Your task to perform on an android device: Go to sound settings Image 0: 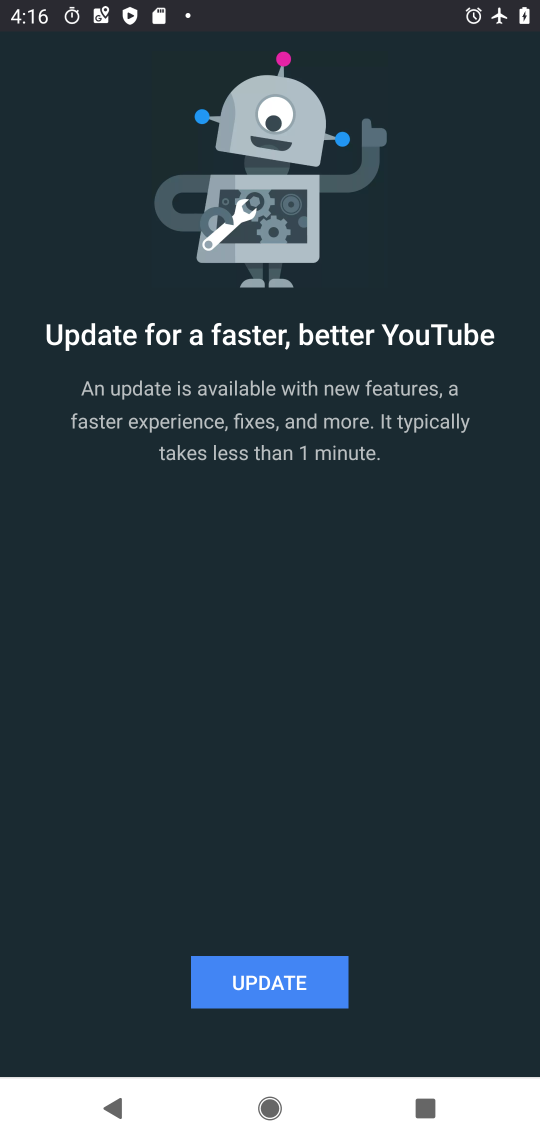
Step 0: press home button
Your task to perform on an android device: Go to sound settings Image 1: 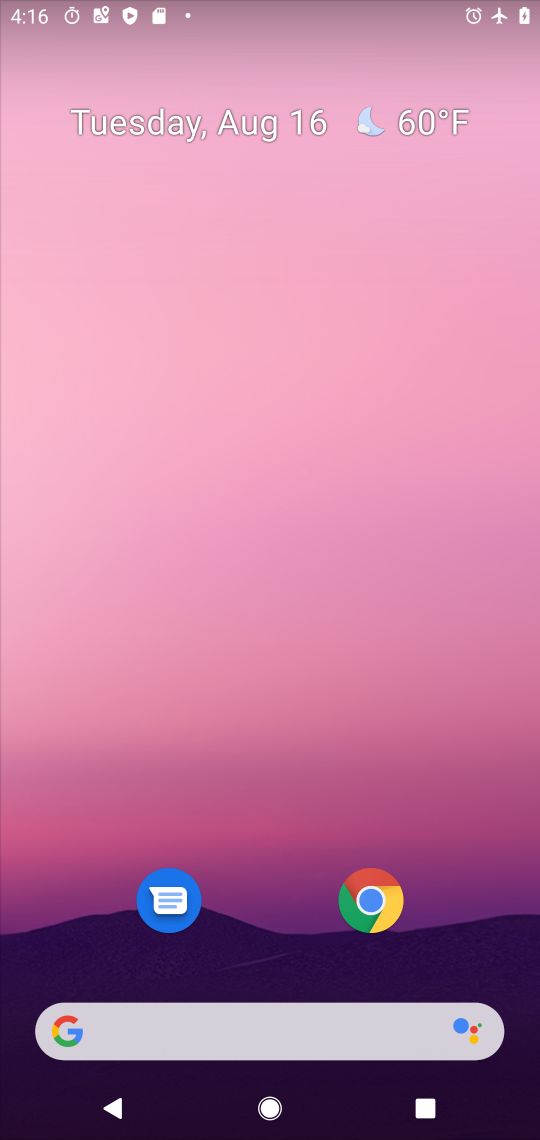
Step 1: drag from (276, 954) to (226, 81)
Your task to perform on an android device: Go to sound settings Image 2: 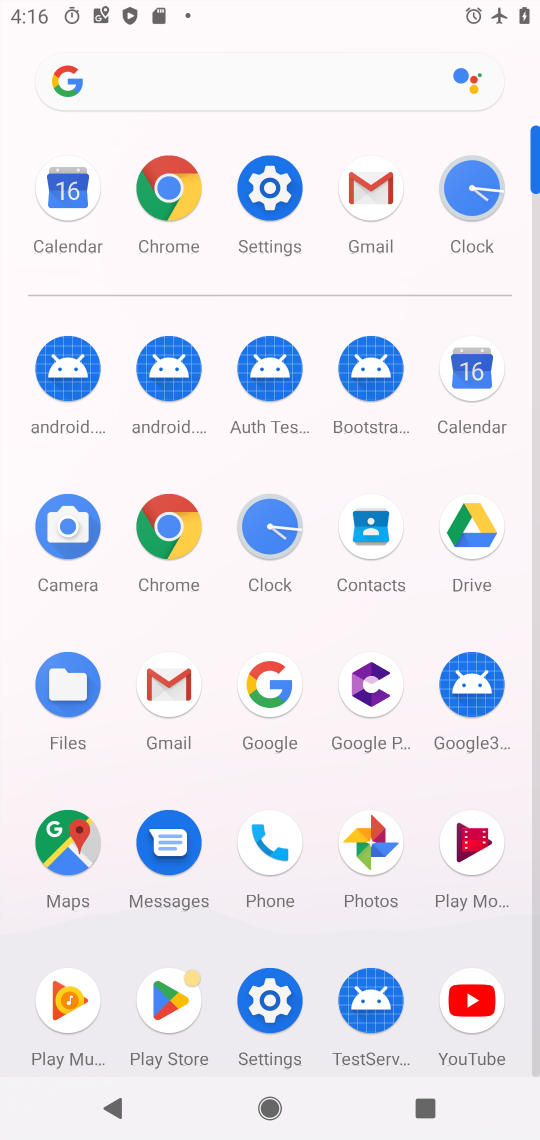
Step 2: click (280, 186)
Your task to perform on an android device: Go to sound settings Image 3: 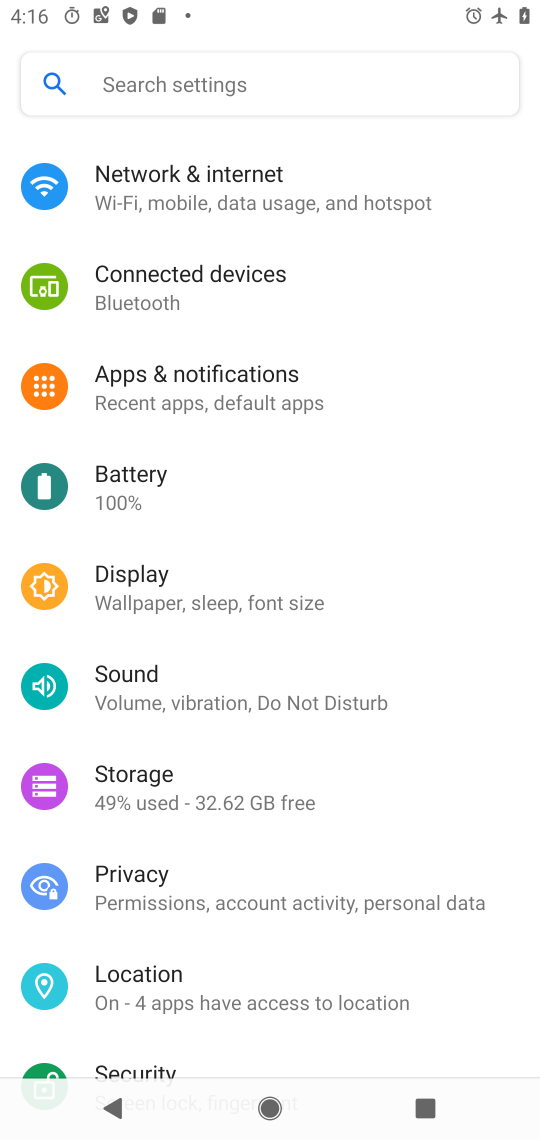
Step 3: click (145, 671)
Your task to perform on an android device: Go to sound settings Image 4: 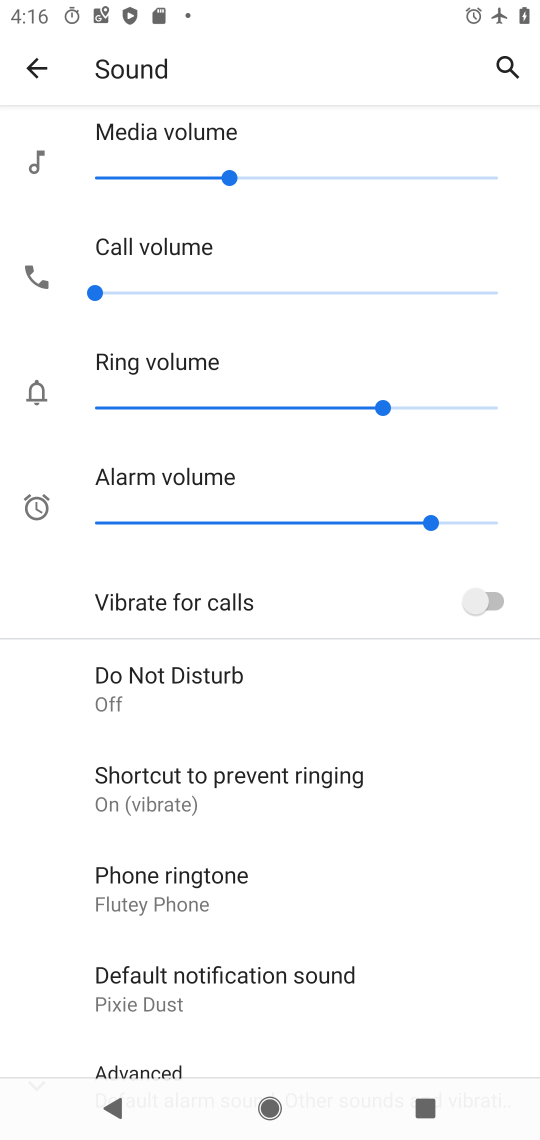
Step 4: task complete